Your task to perform on an android device: open a bookmark in the chrome app Image 0: 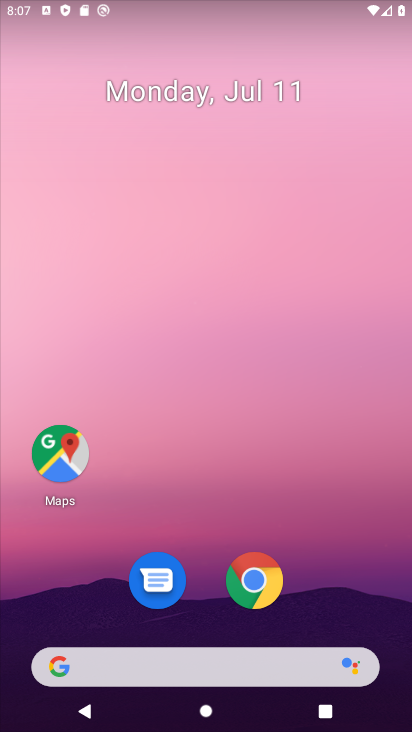
Step 0: click (261, 583)
Your task to perform on an android device: open a bookmark in the chrome app Image 1: 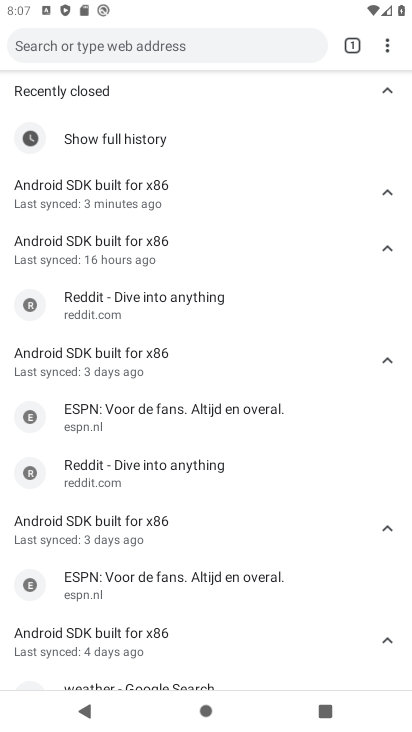
Step 1: click (387, 44)
Your task to perform on an android device: open a bookmark in the chrome app Image 2: 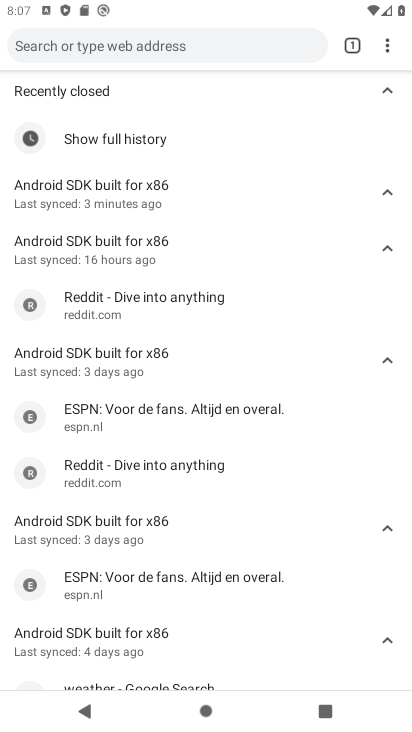
Step 2: click (384, 49)
Your task to perform on an android device: open a bookmark in the chrome app Image 3: 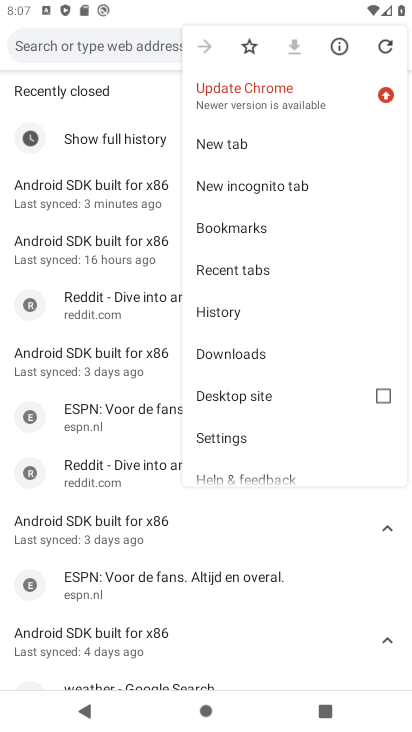
Step 3: click (255, 224)
Your task to perform on an android device: open a bookmark in the chrome app Image 4: 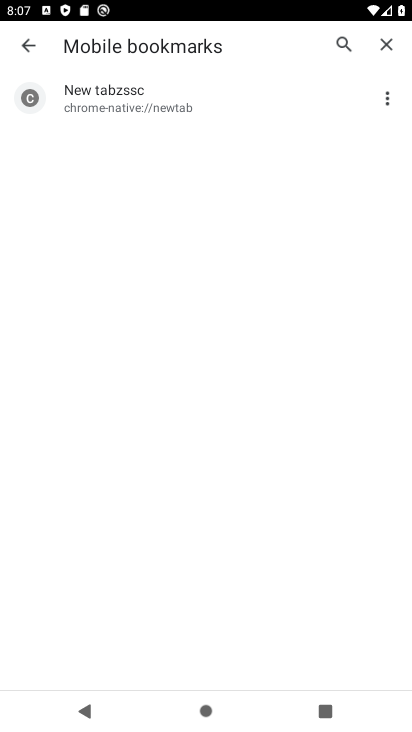
Step 4: click (151, 98)
Your task to perform on an android device: open a bookmark in the chrome app Image 5: 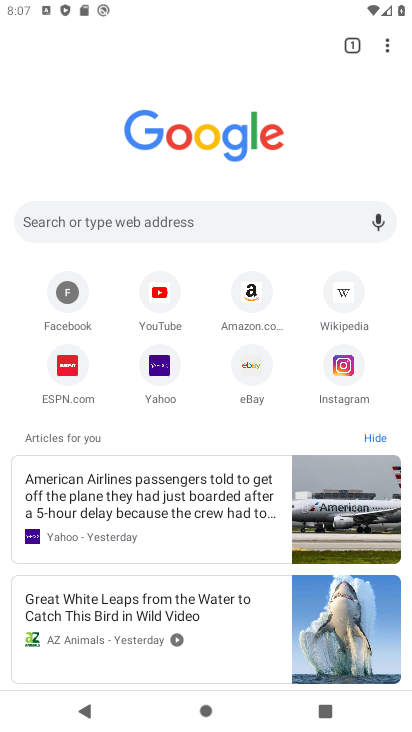
Step 5: click (384, 47)
Your task to perform on an android device: open a bookmark in the chrome app Image 6: 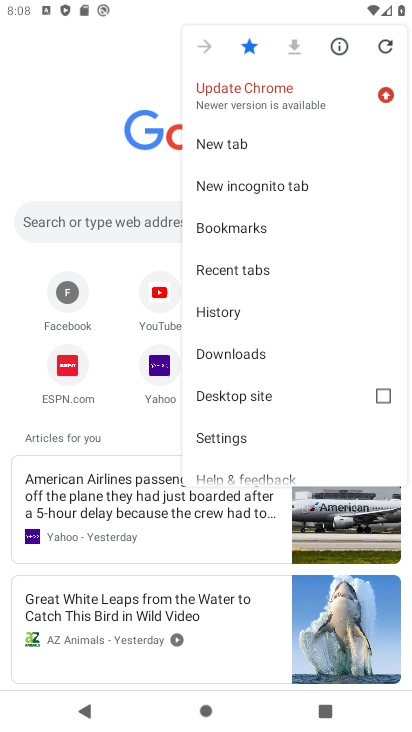
Step 6: click (93, 141)
Your task to perform on an android device: open a bookmark in the chrome app Image 7: 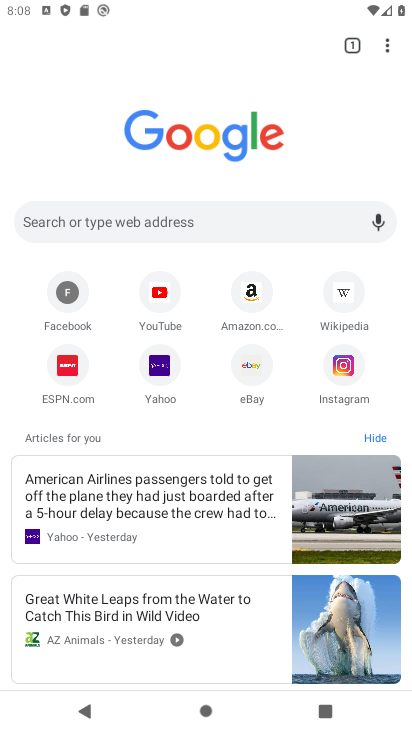
Step 7: task complete